Your task to perform on an android device: change the upload size in google photos Image 0: 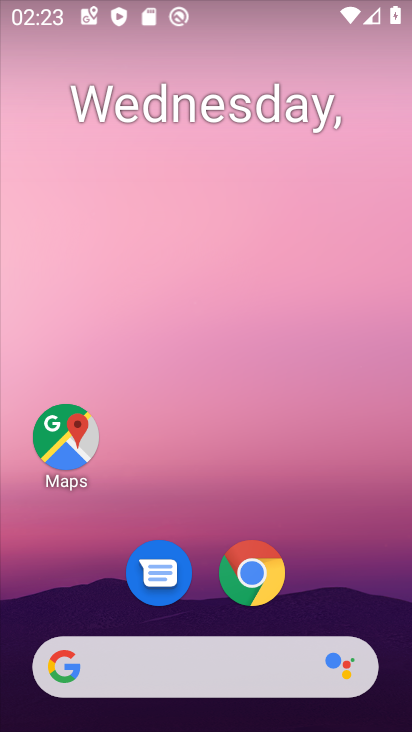
Step 0: drag from (346, 568) to (255, 14)
Your task to perform on an android device: change the upload size in google photos Image 1: 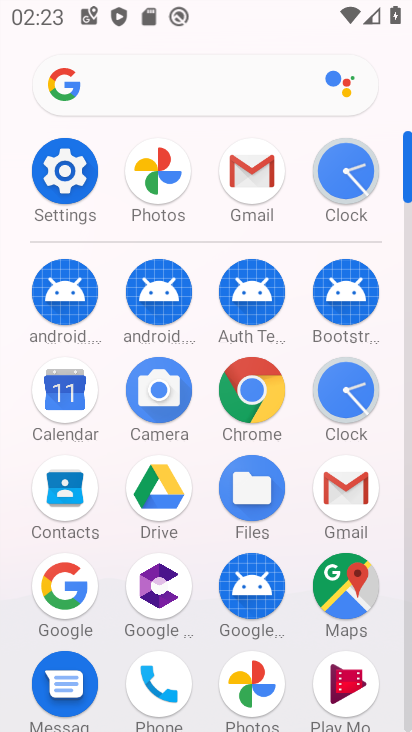
Step 1: click (158, 174)
Your task to perform on an android device: change the upload size in google photos Image 2: 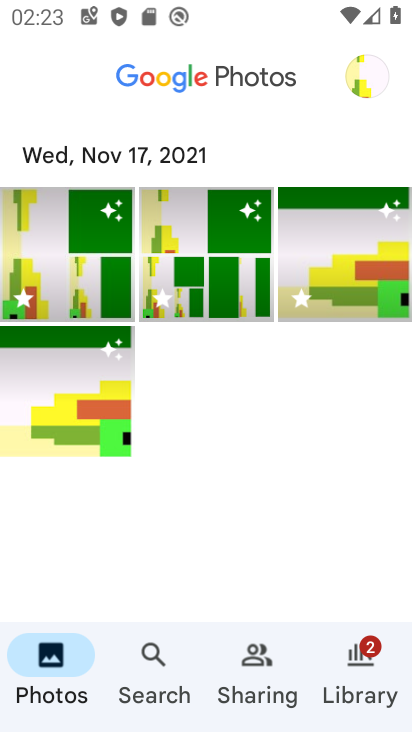
Step 2: click (367, 80)
Your task to perform on an android device: change the upload size in google photos Image 3: 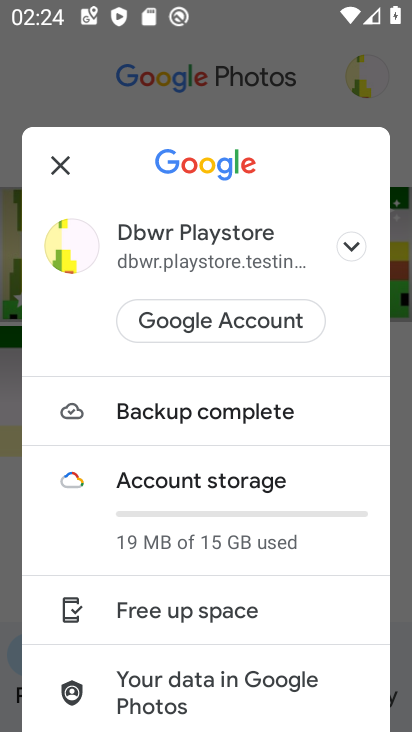
Step 3: drag from (208, 616) to (210, 282)
Your task to perform on an android device: change the upload size in google photos Image 4: 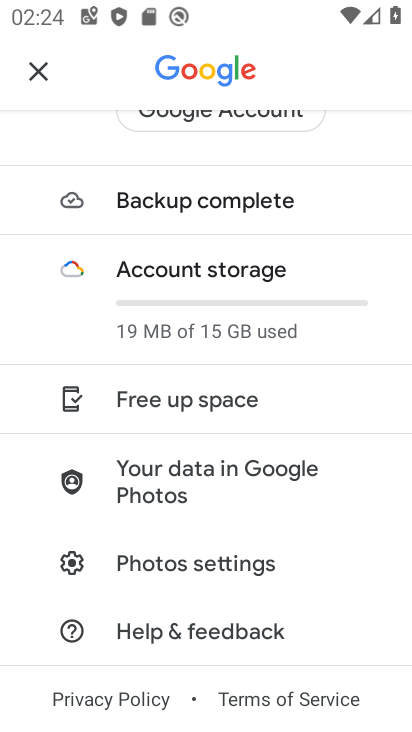
Step 4: click (167, 569)
Your task to perform on an android device: change the upload size in google photos Image 5: 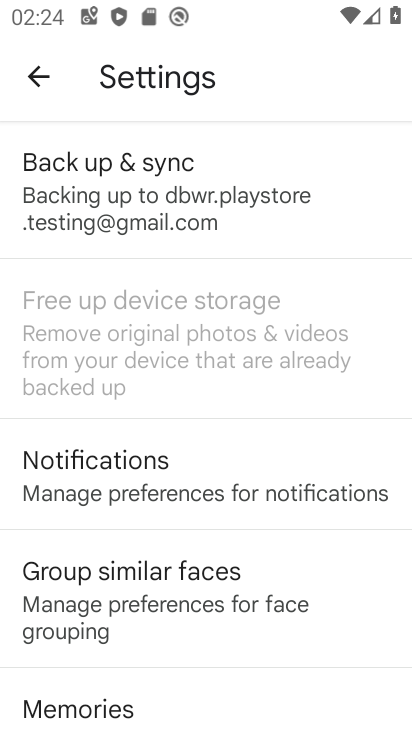
Step 5: click (113, 201)
Your task to perform on an android device: change the upload size in google photos Image 6: 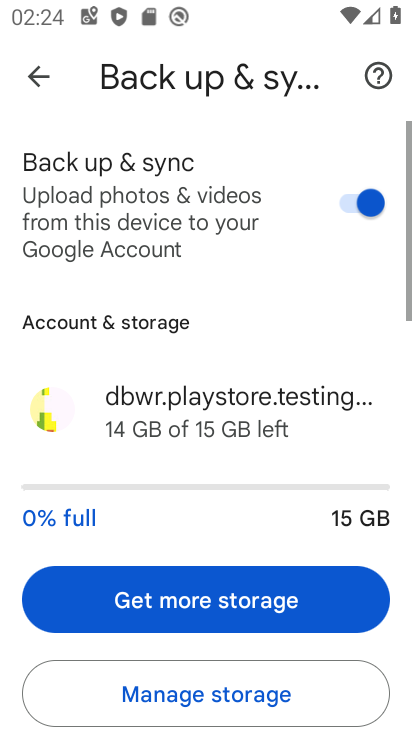
Step 6: drag from (157, 538) to (200, 322)
Your task to perform on an android device: change the upload size in google photos Image 7: 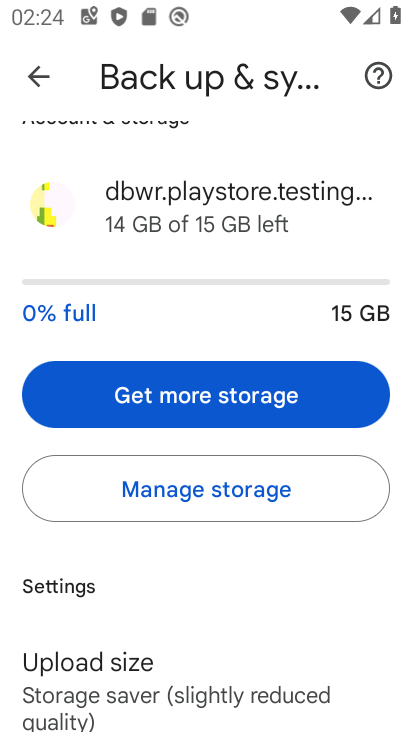
Step 7: drag from (154, 567) to (221, 365)
Your task to perform on an android device: change the upload size in google photos Image 8: 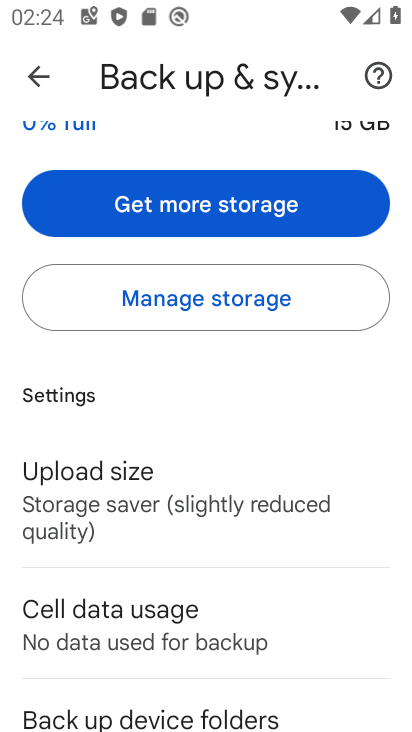
Step 8: click (144, 494)
Your task to perform on an android device: change the upload size in google photos Image 9: 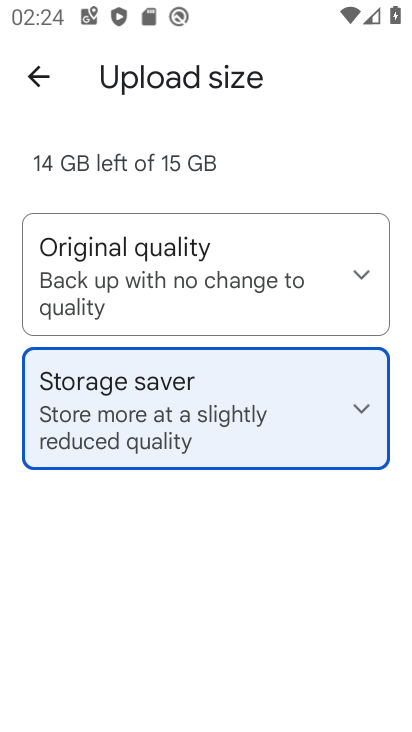
Step 9: click (177, 283)
Your task to perform on an android device: change the upload size in google photos Image 10: 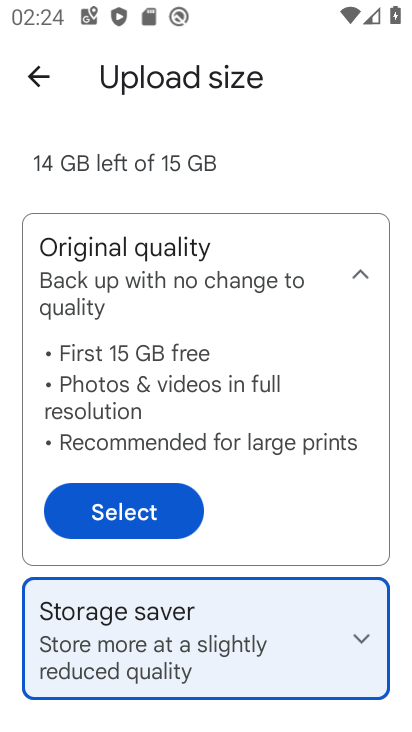
Step 10: click (111, 514)
Your task to perform on an android device: change the upload size in google photos Image 11: 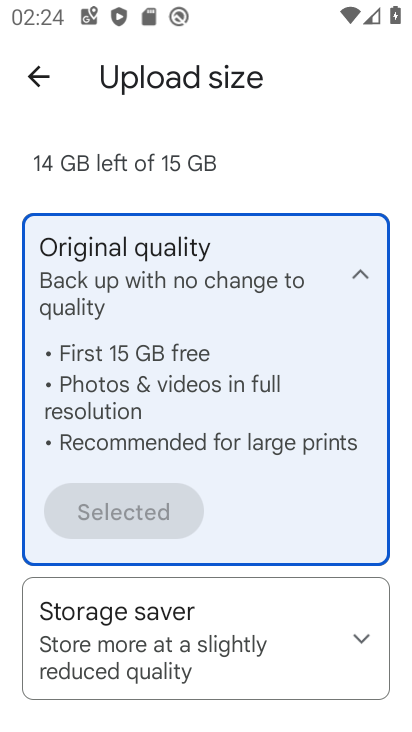
Step 11: task complete